Your task to perform on an android device: Open Chrome and go to settings Image 0: 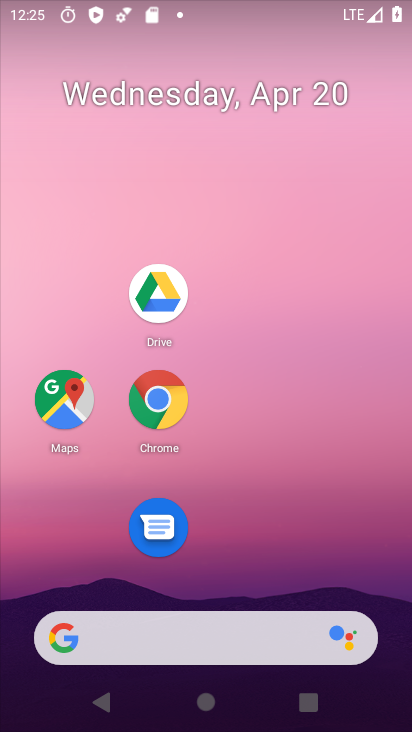
Step 0: drag from (304, 667) to (259, 239)
Your task to perform on an android device: Open Chrome and go to settings Image 1: 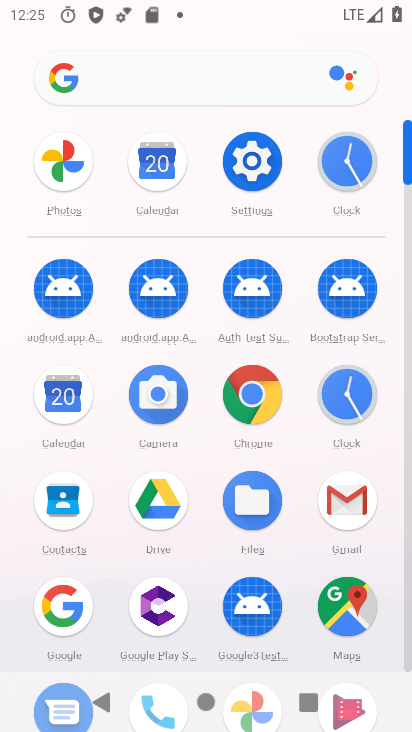
Step 1: click (239, 398)
Your task to perform on an android device: Open Chrome and go to settings Image 2: 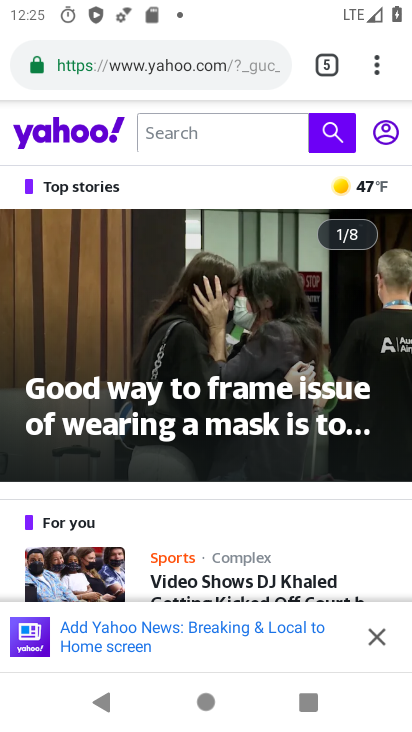
Step 2: click (244, 399)
Your task to perform on an android device: Open Chrome and go to settings Image 3: 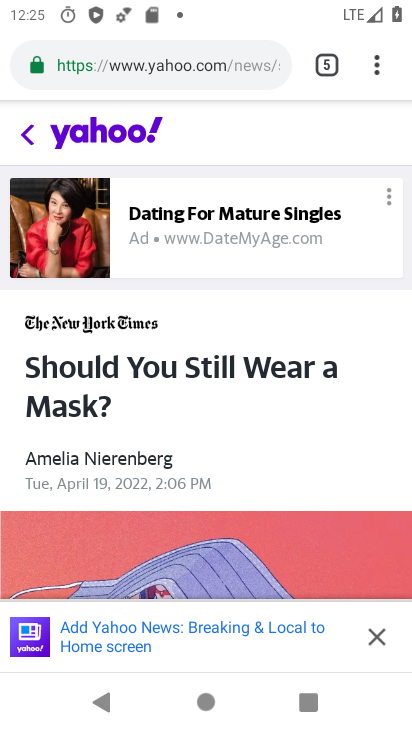
Step 3: click (380, 64)
Your task to perform on an android device: Open Chrome and go to settings Image 4: 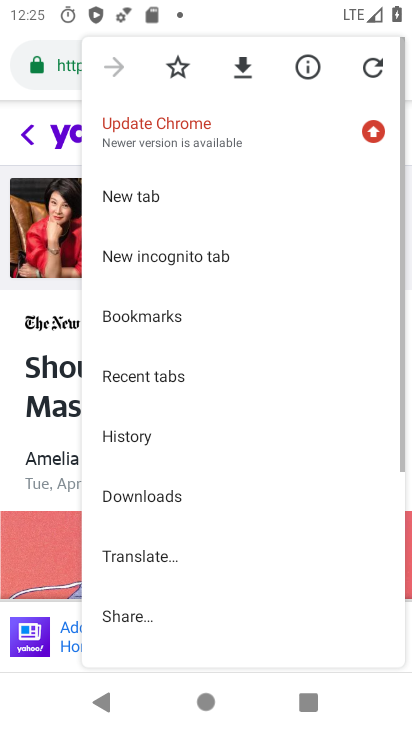
Step 4: drag from (297, 219) to (204, 478)
Your task to perform on an android device: Open Chrome and go to settings Image 5: 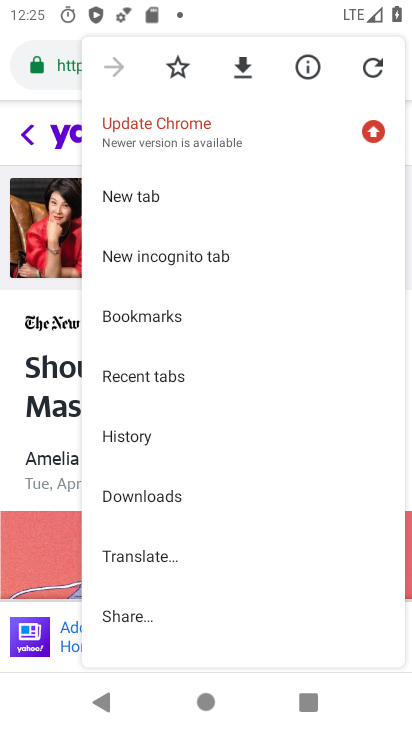
Step 5: drag from (151, 637) to (141, 503)
Your task to perform on an android device: Open Chrome and go to settings Image 6: 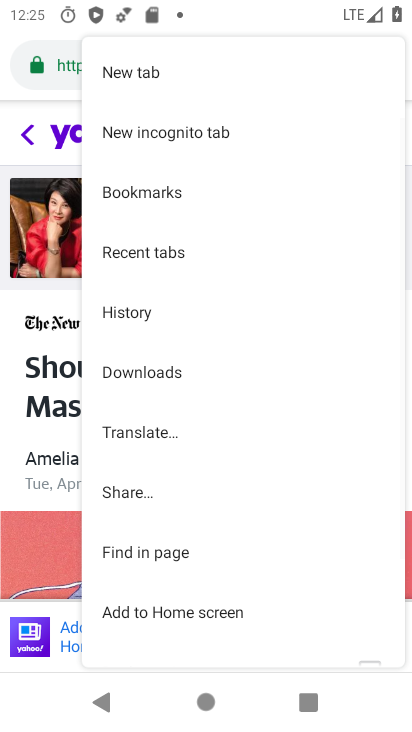
Step 6: drag from (157, 628) to (155, 530)
Your task to perform on an android device: Open Chrome and go to settings Image 7: 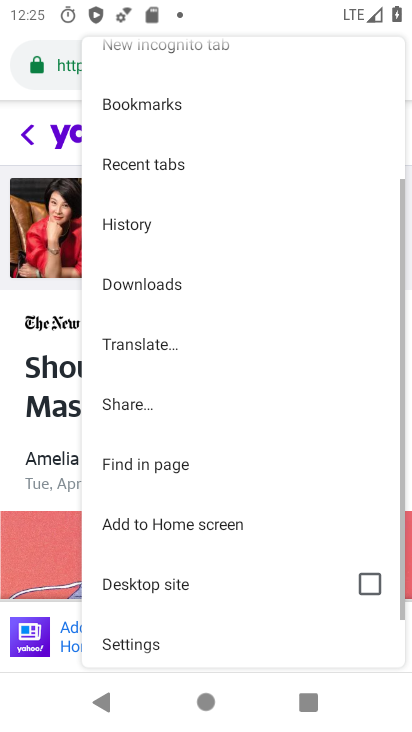
Step 7: click (138, 646)
Your task to perform on an android device: Open Chrome and go to settings Image 8: 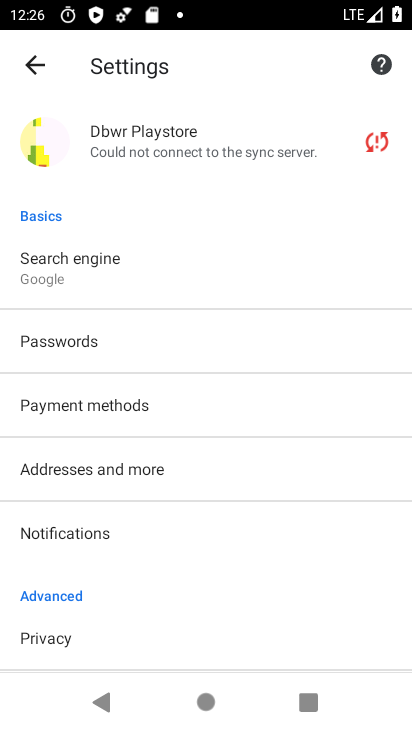
Step 8: task complete